Your task to perform on an android device: turn notification dots on Image 0: 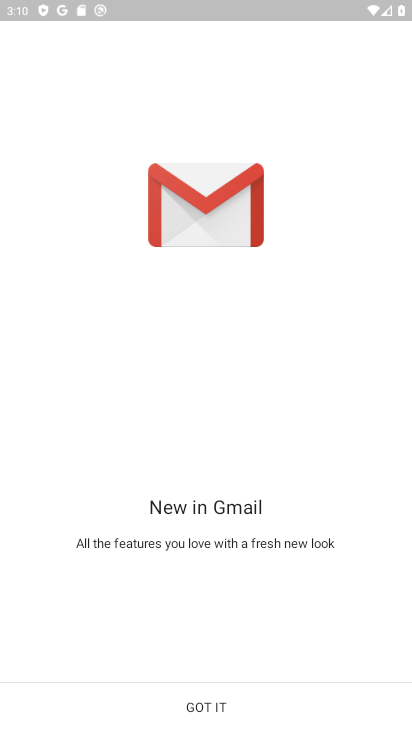
Step 0: press home button
Your task to perform on an android device: turn notification dots on Image 1: 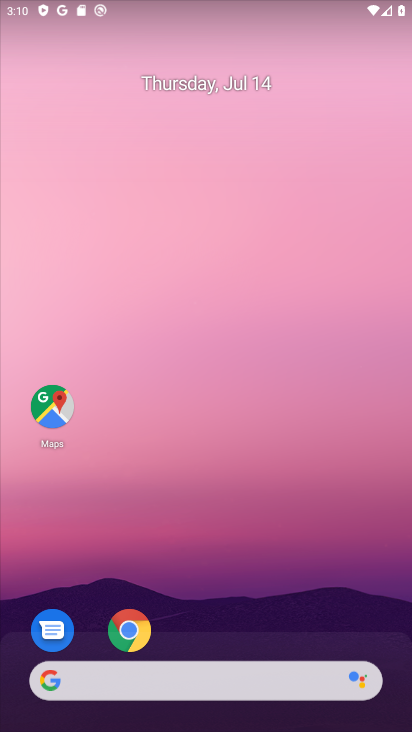
Step 1: drag from (283, 588) to (248, 100)
Your task to perform on an android device: turn notification dots on Image 2: 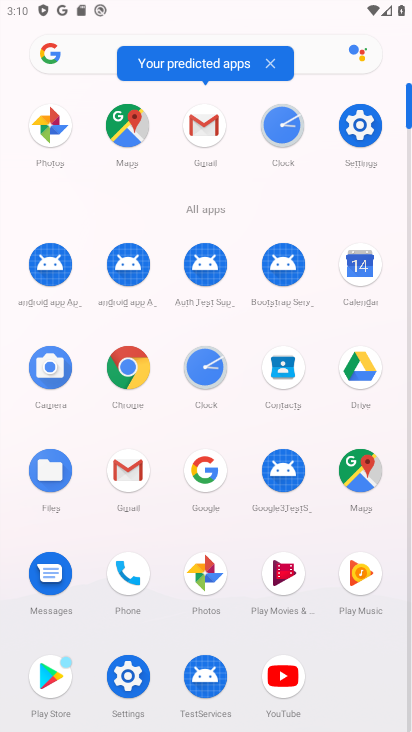
Step 2: drag from (360, 122) to (271, 153)
Your task to perform on an android device: turn notification dots on Image 3: 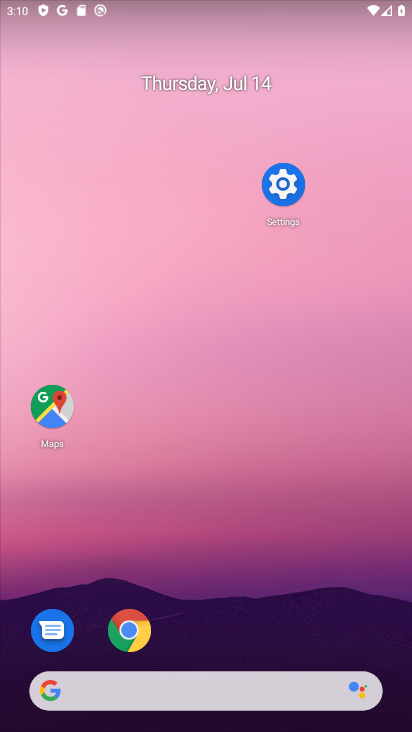
Step 3: click (272, 185)
Your task to perform on an android device: turn notification dots on Image 4: 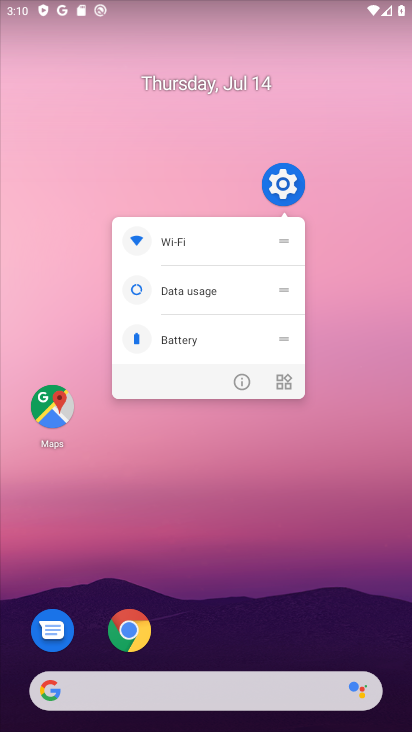
Step 4: click (272, 185)
Your task to perform on an android device: turn notification dots on Image 5: 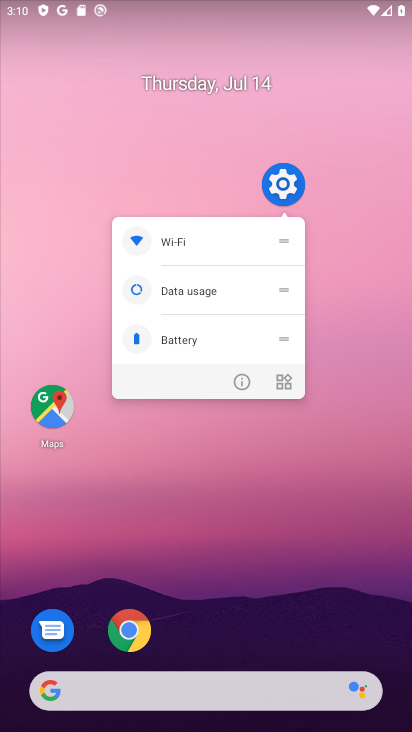
Step 5: click (272, 185)
Your task to perform on an android device: turn notification dots on Image 6: 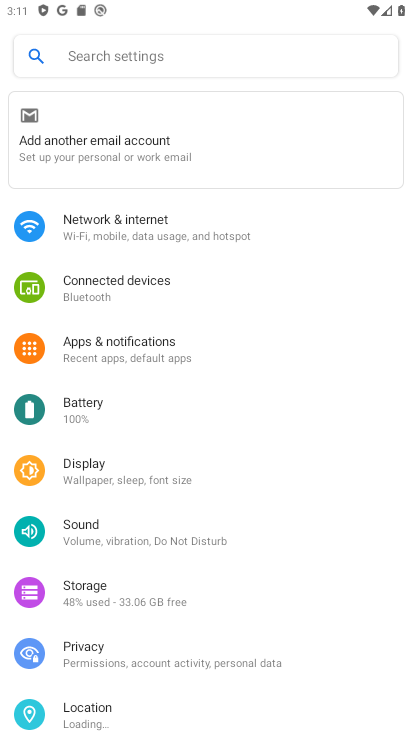
Step 6: click (199, 348)
Your task to perform on an android device: turn notification dots on Image 7: 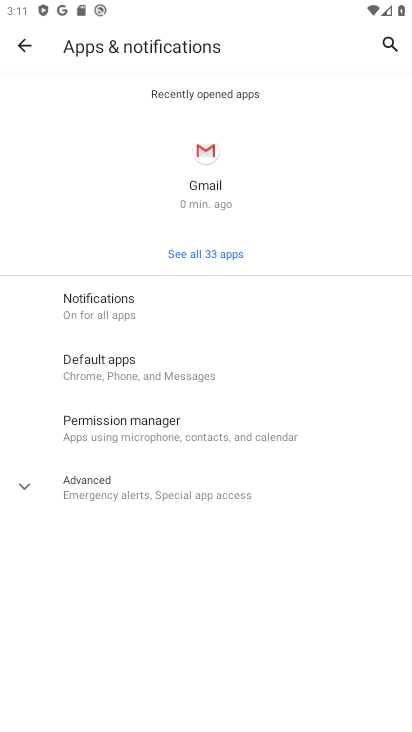
Step 7: click (188, 301)
Your task to perform on an android device: turn notification dots on Image 8: 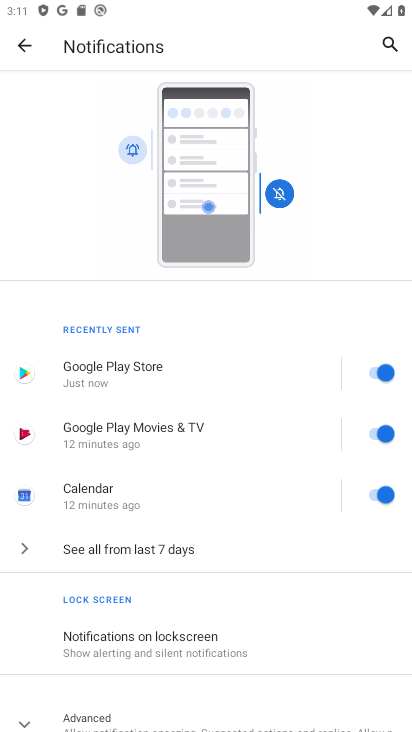
Step 8: click (109, 708)
Your task to perform on an android device: turn notification dots on Image 9: 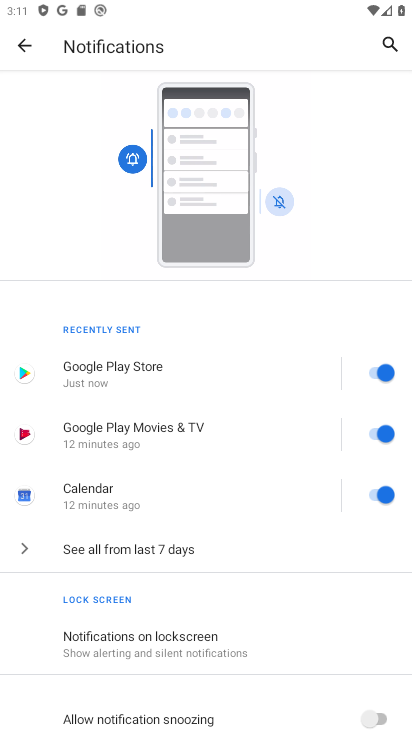
Step 9: task complete